Your task to perform on an android device: How much does a 2 bedroom apartment rent for in Chicago? Image 0: 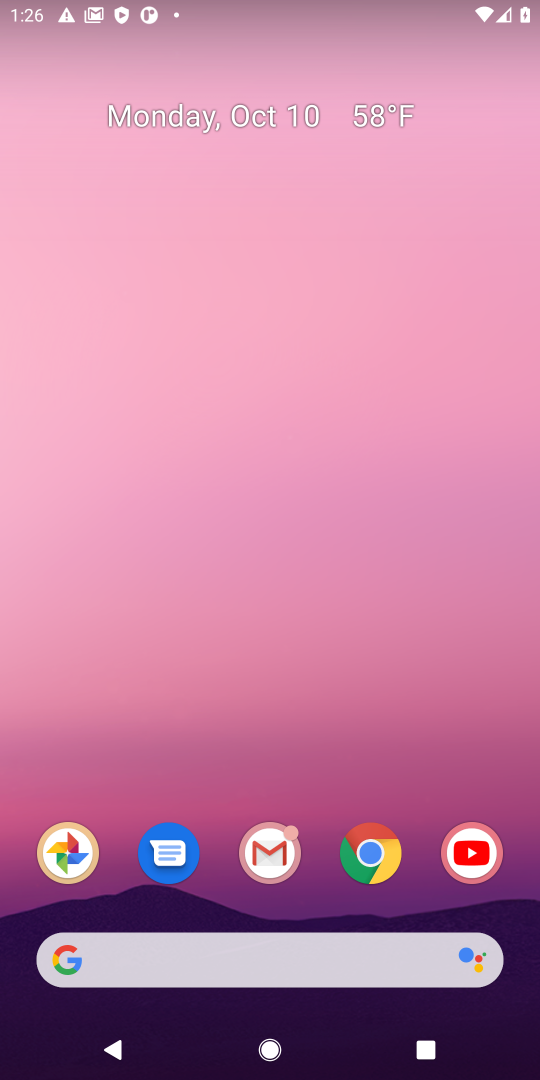
Step 0: click (296, 1069)
Your task to perform on an android device: How much does a 2 bedroom apartment rent for in Chicago? Image 1: 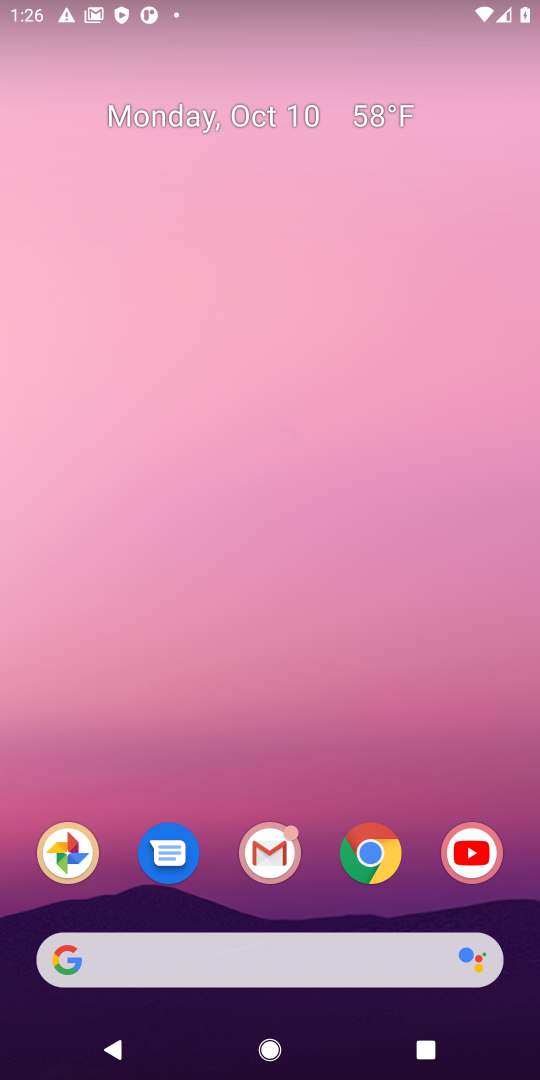
Step 1: click (368, 867)
Your task to perform on an android device: How much does a 2 bedroom apartment rent for in Chicago? Image 2: 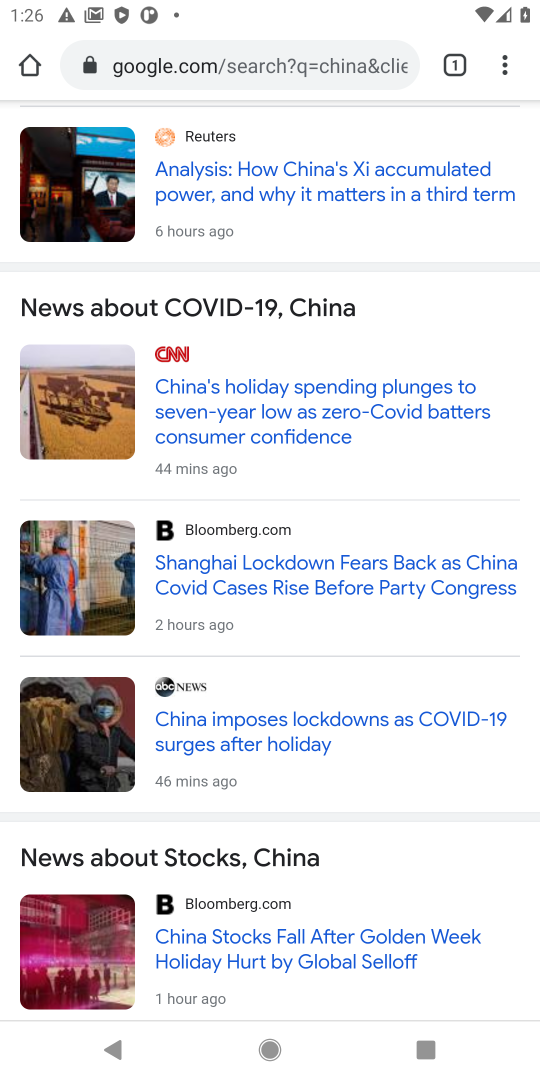
Step 2: click (177, 61)
Your task to perform on an android device: How much does a 2 bedroom apartment rent for in Chicago? Image 3: 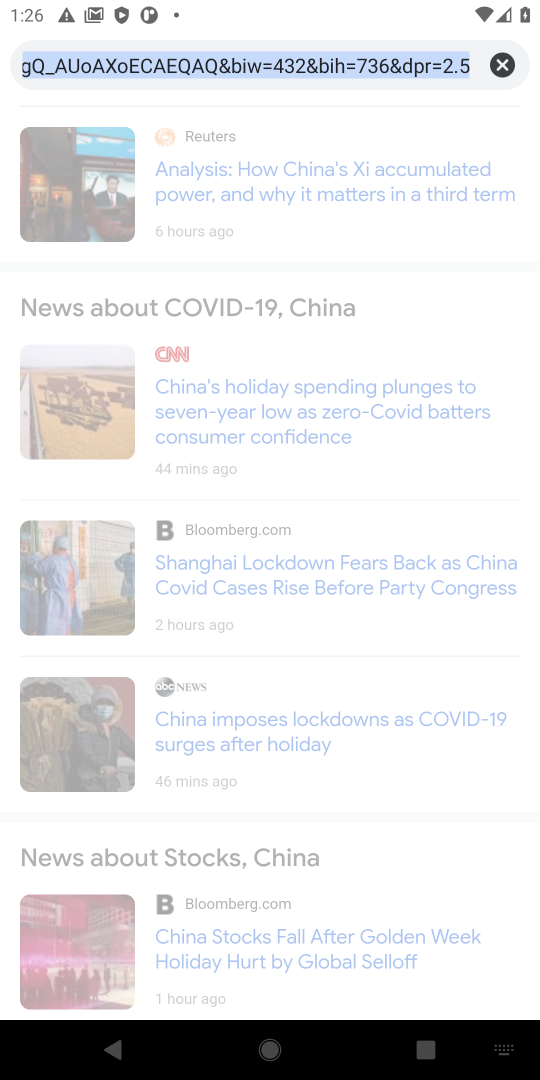
Step 3: type "2 bedroom apartment rent for in Chicago"
Your task to perform on an android device: How much does a 2 bedroom apartment rent for in Chicago? Image 4: 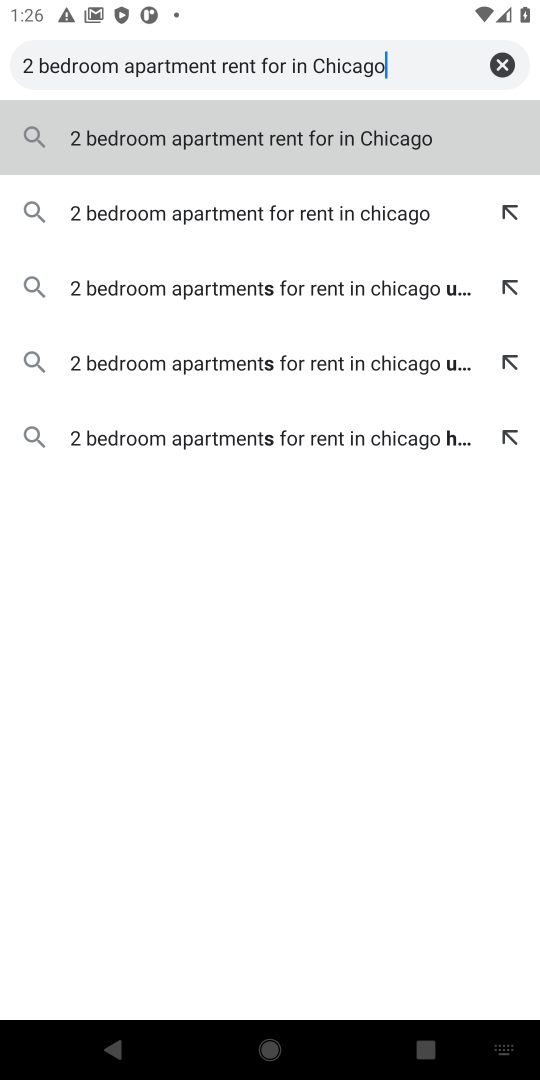
Step 4: click (280, 146)
Your task to perform on an android device: How much does a 2 bedroom apartment rent for in Chicago? Image 5: 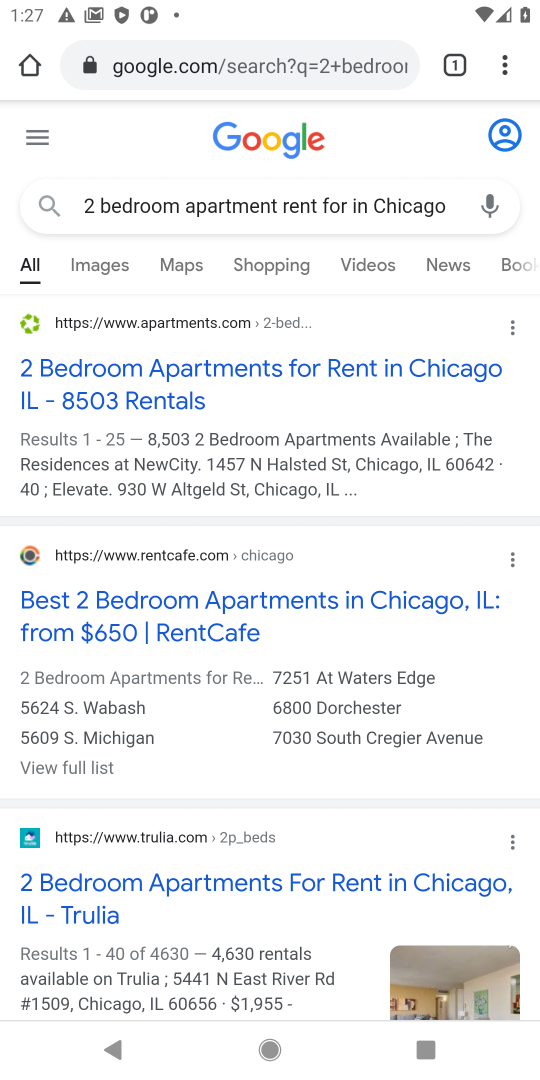
Step 5: click (172, 376)
Your task to perform on an android device: How much does a 2 bedroom apartment rent for in Chicago? Image 6: 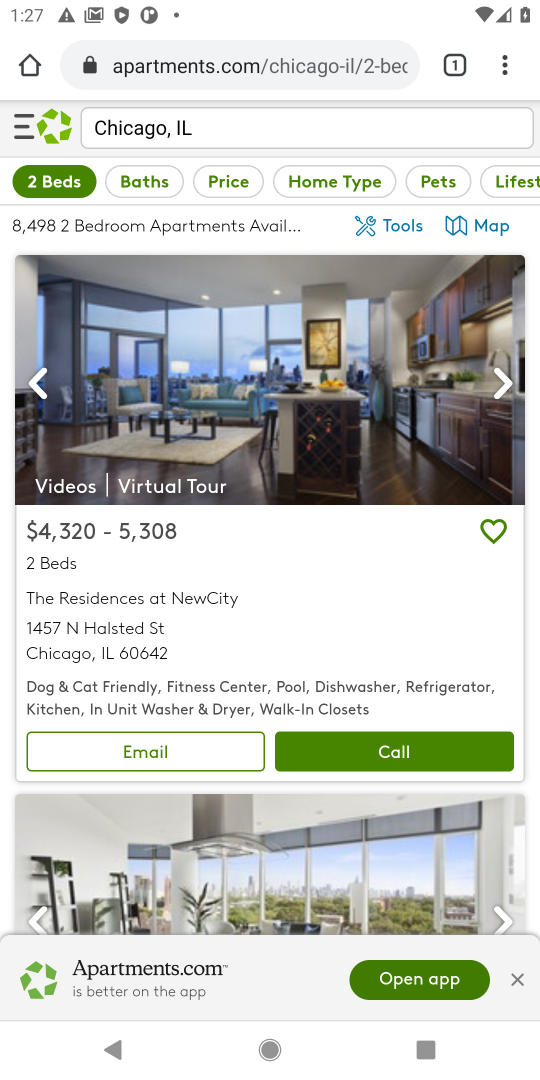
Step 6: drag from (231, 627) to (283, 216)
Your task to perform on an android device: How much does a 2 bedroom apartment rent for in Chicago? Image 7: 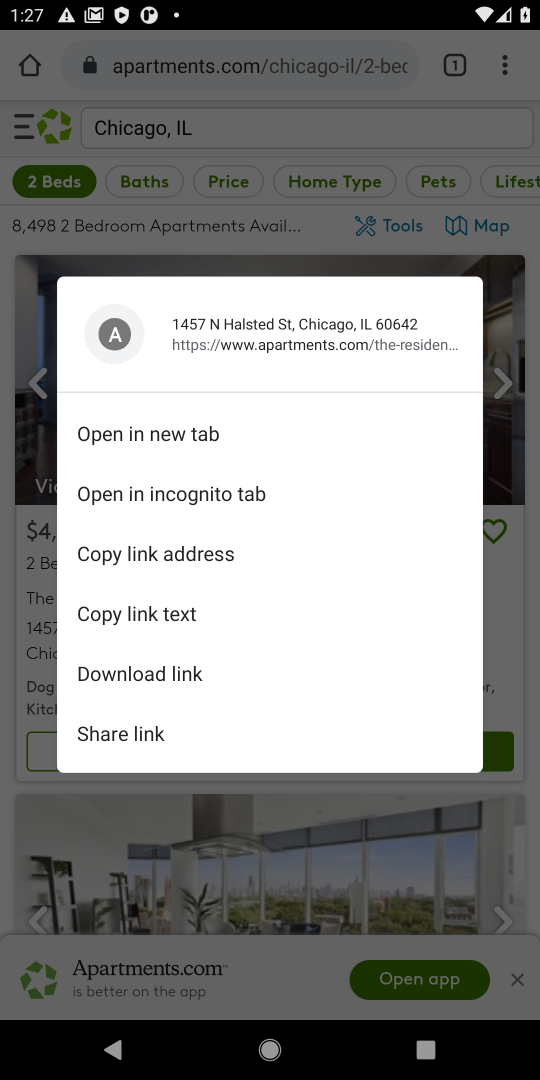
Step 7: click (301, 233)
Your task to perform on an android device: How much does a 2 bedroom apartment rent for in Chicago? Image 8: 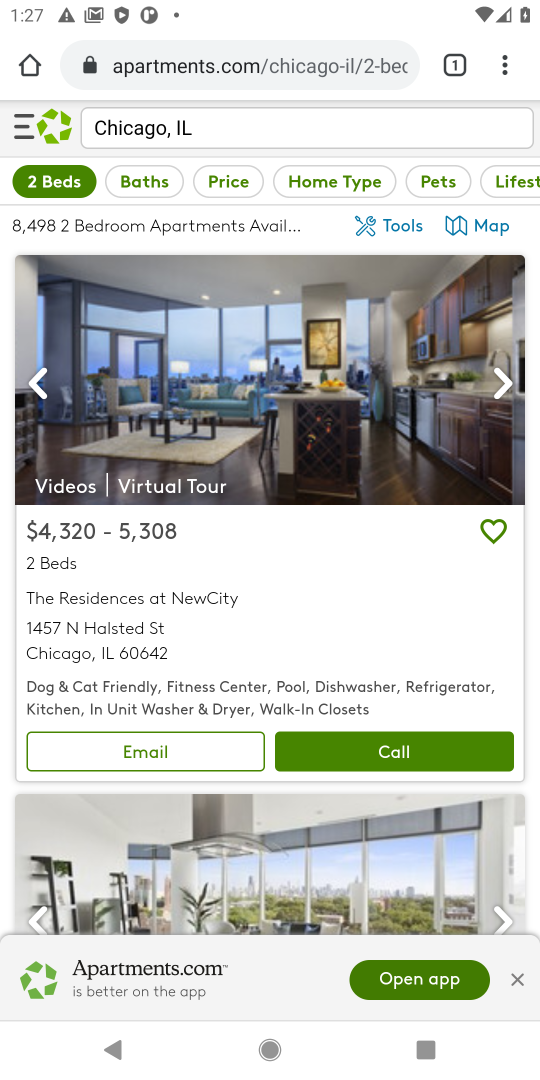
Step 8: drag from (321, 615) to (178, 89)
Your task to perform on an android device: How much does a 2 bedroom apartment rent for in Chicago? Image 9: 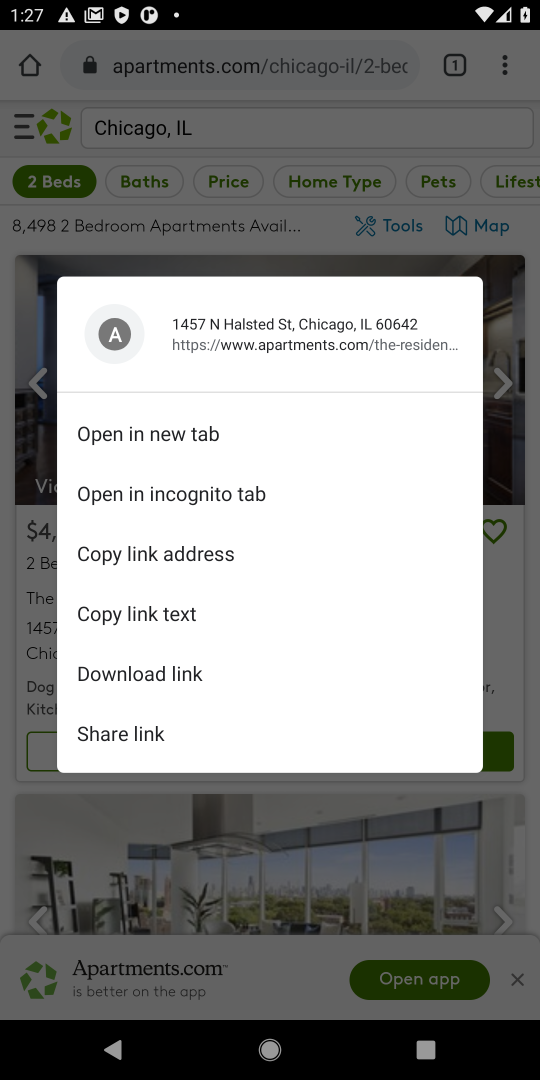
Step 9: click (168, 252)
Your task to perform on an android device: How much does a 2 bedroom apartment rent for in Chicago? Image 10: 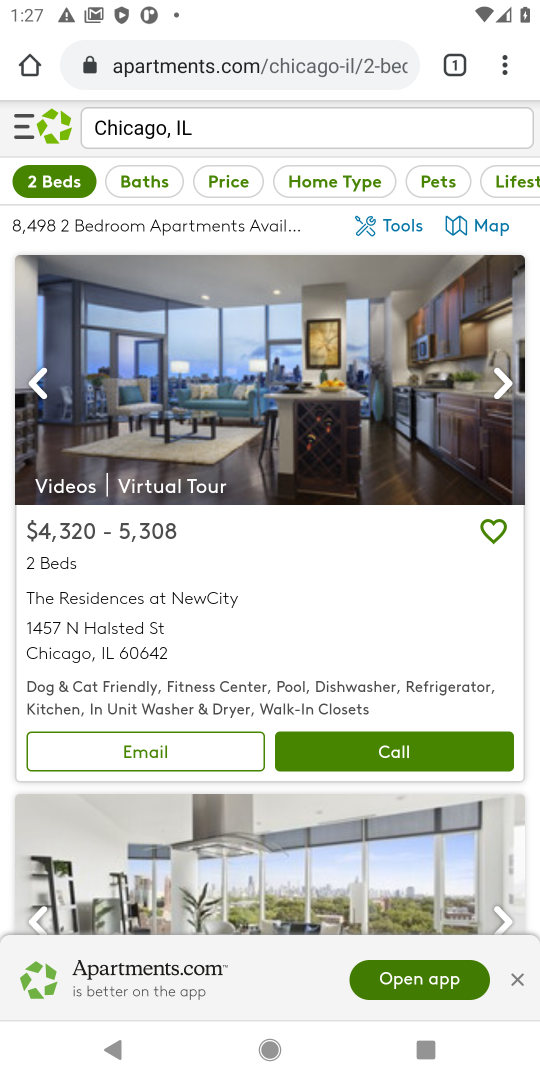
Step 10: task complete